Your task to perform on an android device: check data usage Image 0: 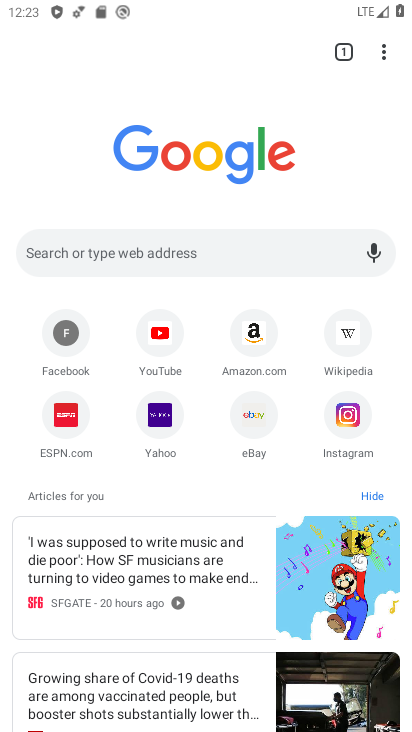
Step 0: press back button
Your task to perform on an android device: check data usage Image 1: 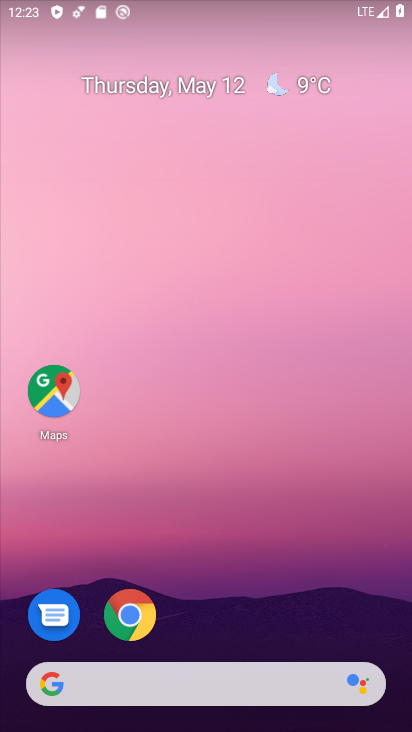
Step 1: drag from (262, 554) to (213, 93)
Your task to perform on an android device: check data usage Image 2: 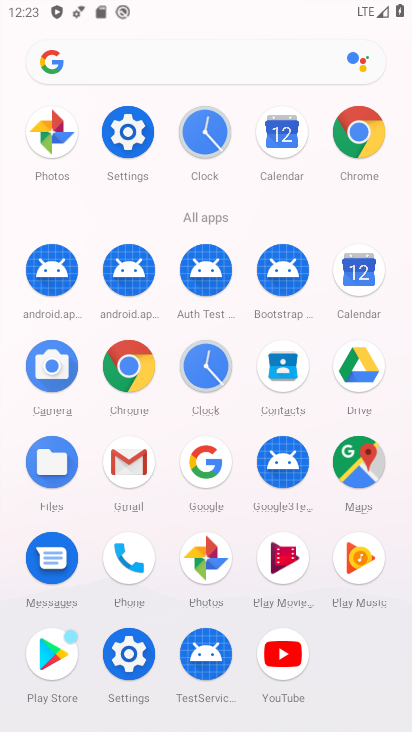
Step 2: click (129, 131)
Your task to perform on an android device: check data usage Image 3: 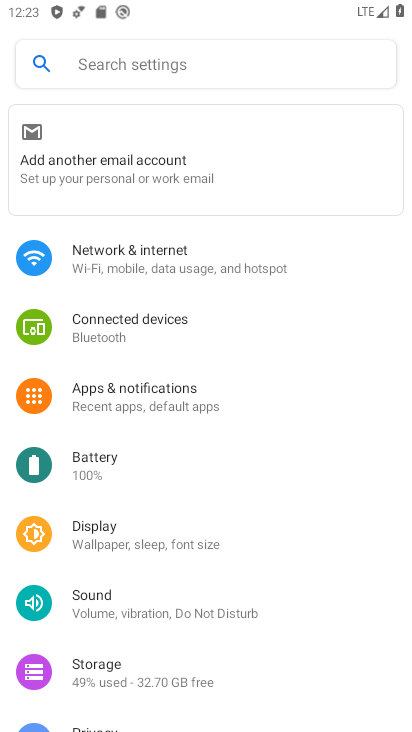
Step 3: click (171, 262)
Your task to perform on an android device: check data usage Image 4: 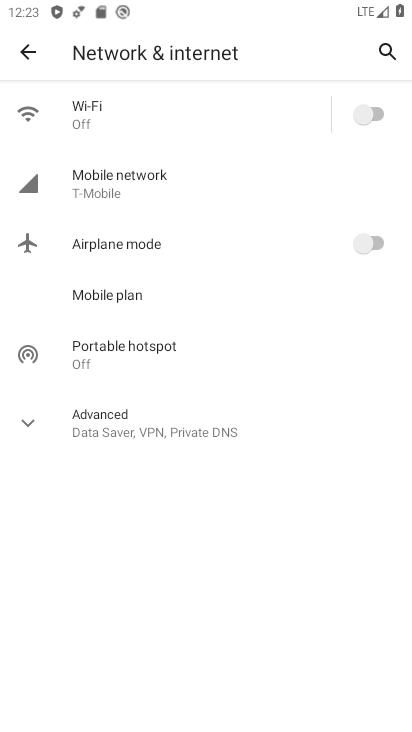
Step 4: click (131, 186)
Your task to perform on an android device: check data usage Image 5: 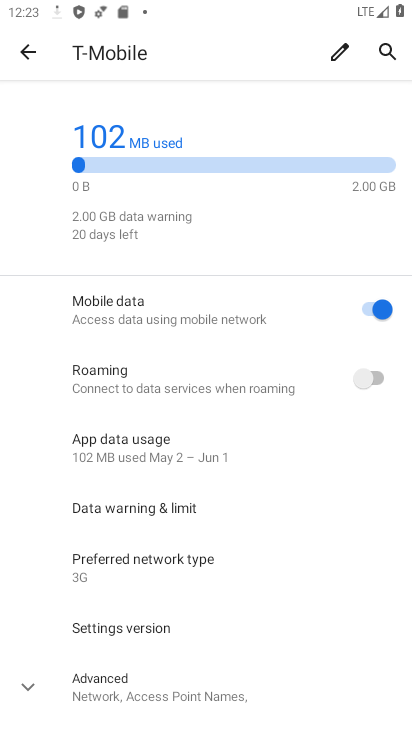
Step 5: task complete